Your task to perform on an android device: Go to ESPN.com Image 0: 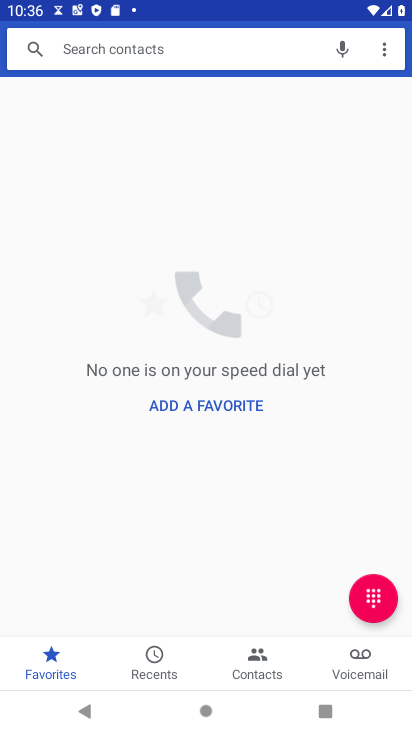
Step 0: press home button
Your task to perform on an android device: Go to ESPN.com Image 1: 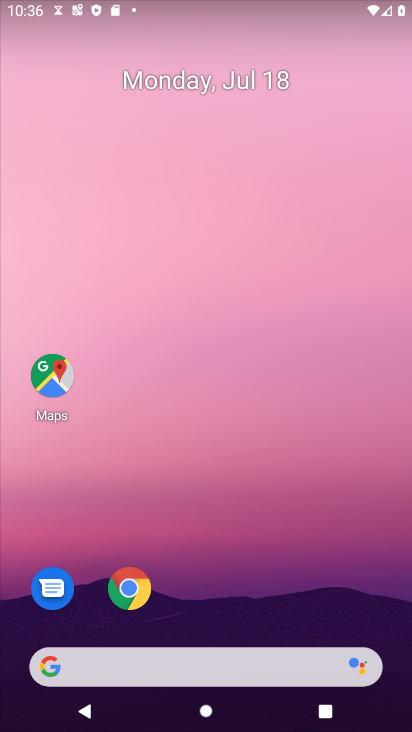
Step 1: click (130, 591)
Your task to perform on an android device: Go to ESPN.com Image 2: 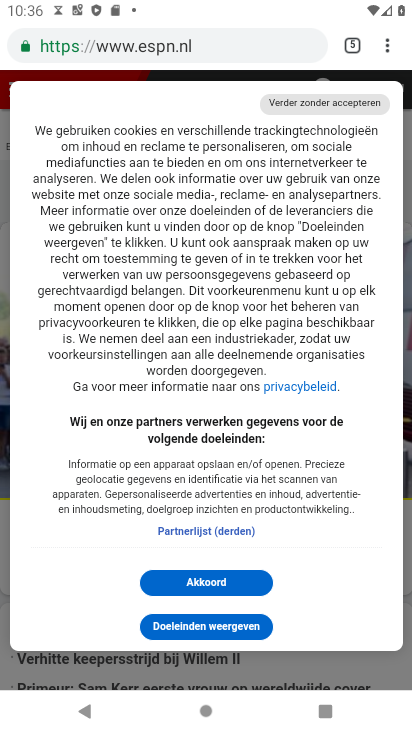
Step 2: click (183, 577)
Your task to perform on an android device: Go to ESPN.com Image 3: 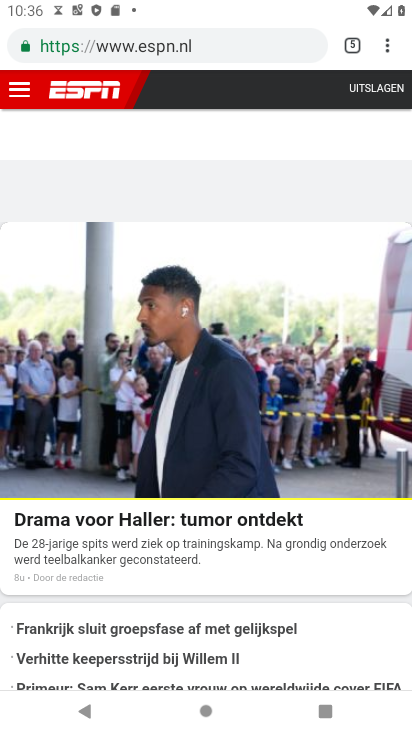
Step 3: task complete